Your task to perform on an android device: turn on improve location accuracy Image 0: 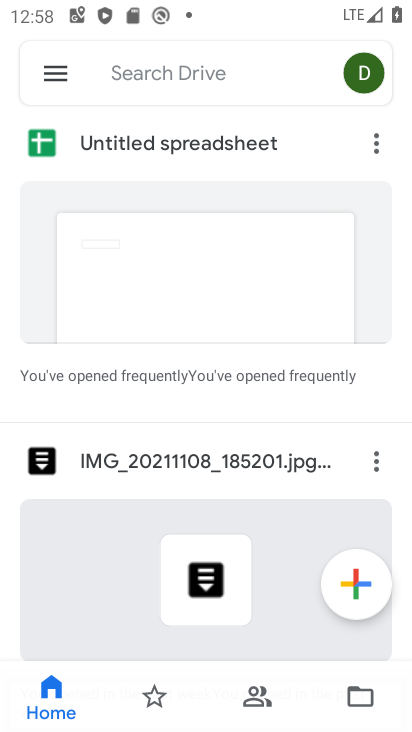
Step 0: press home button
Your task to perform on an android device: turn on improve location accuracy Image 1: 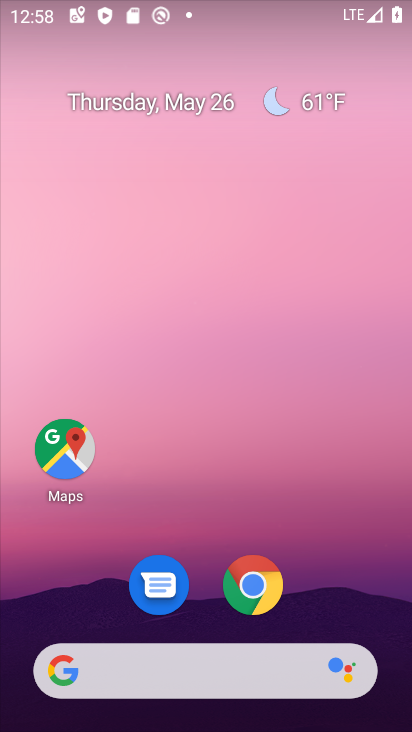
Step 1: drag from (241, 520) to (298, 52)
Your task to perform on an android device: turn on improve location accuracy Image 2: 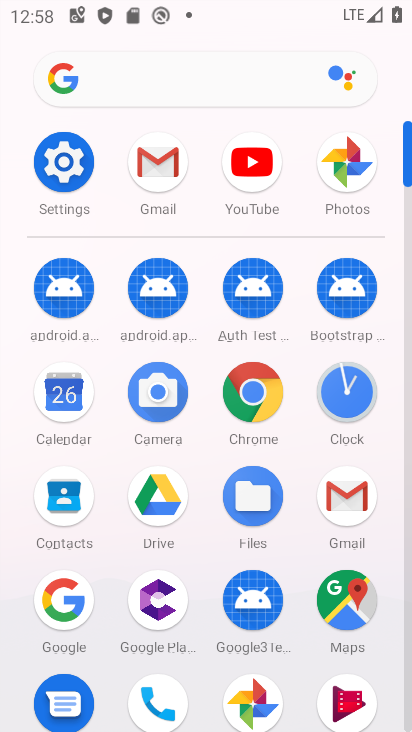
Step 2: click (62, 159)
Your task to perform on an android device: turn on improve location accuracy Image 3: 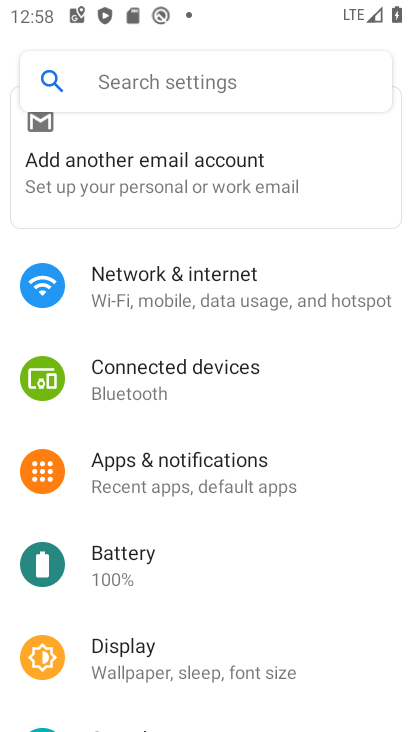
Step 3: drag from (225, 578) to (259, 48)
Your task to perform on an android device: turn on improve location accuracy Image 4: 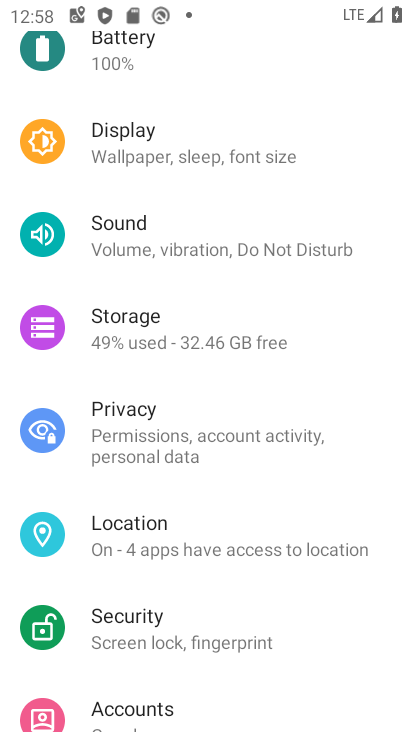
Step 4: click (212, 525)
Your task to perform on an android device: turn on improve location accuracy Image 5: 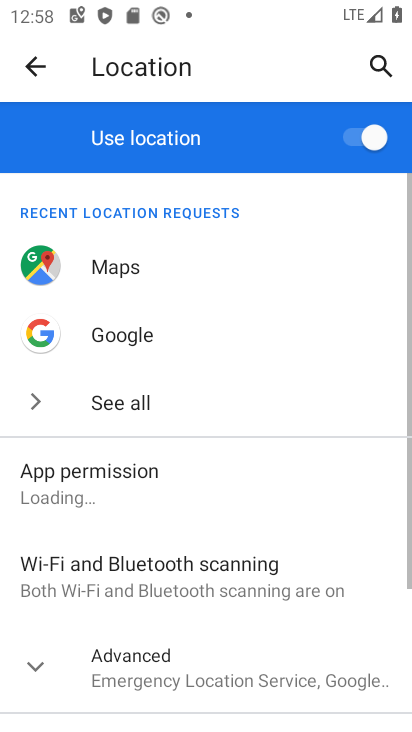
Step 5: drag from (169, 553) to (203, 194)
Your task to perform on an android device: turn on improve location accuracy Image 6: 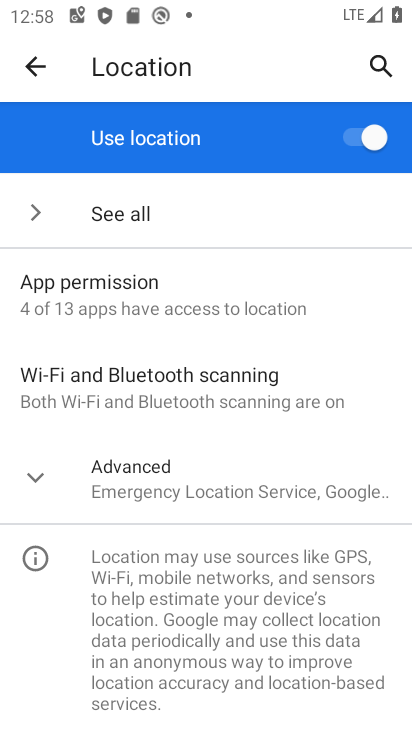
Step 6: click (26, 476)
Your task to perform on an android device: turn on improve location accuracy Image 7: 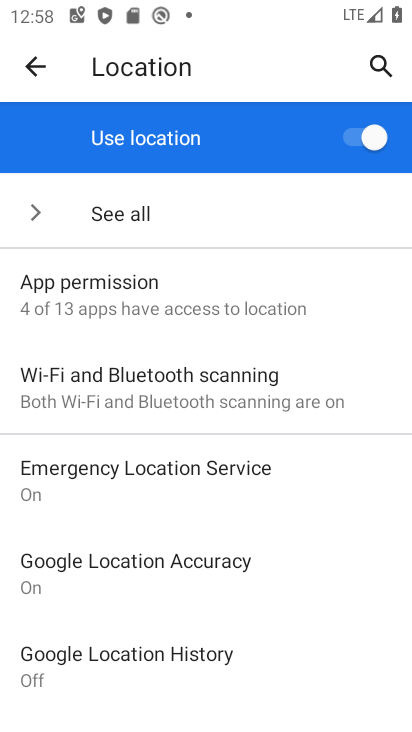
Step 7: click (182, 570)
Your task to perform on an android device: turn on improve location accuracy Image 8: 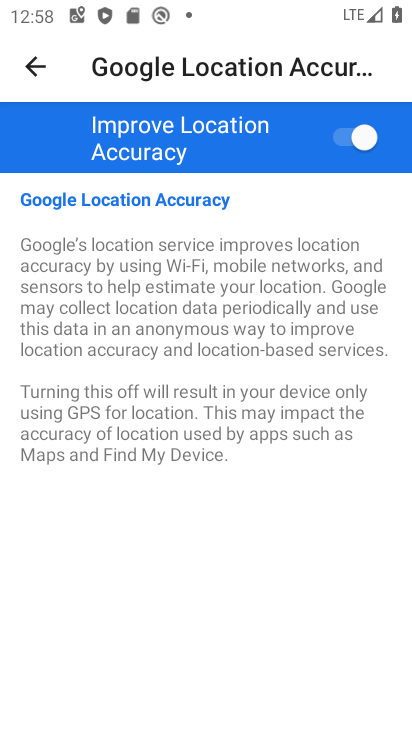
Step 8: task complete